Your task to perform on an android device: refresh tabs in the chrome app Image 0: 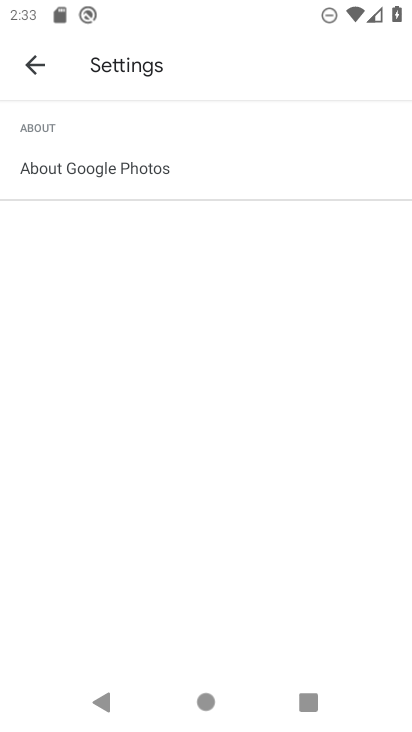
Step 0: click (39, 61)
Your task to perform on an android device: refresh tabs in the chrome app Image 1: 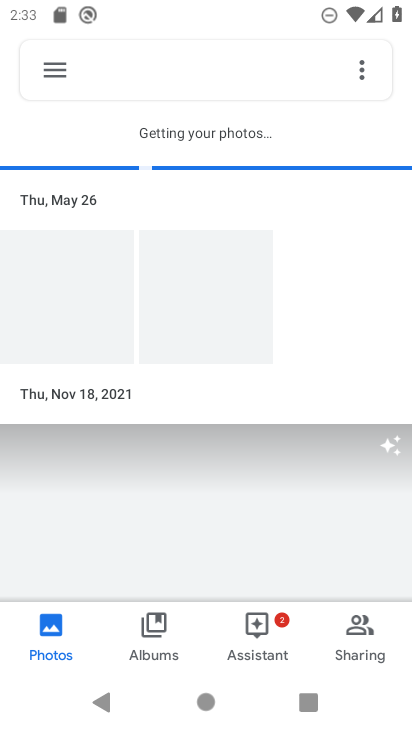
Step 1: click (28, 61)
Your task to perform on an android device: refresh tabs in the chrome app Image 2: 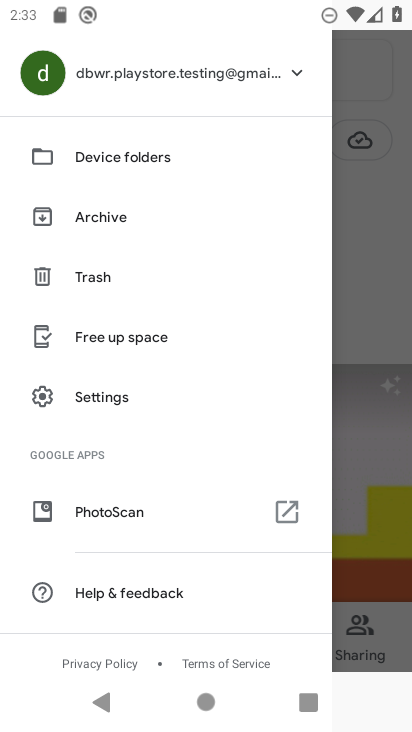
Step 2: press back button
Your task to perform on an android device: refresh tabs in the chrome app Image 3: 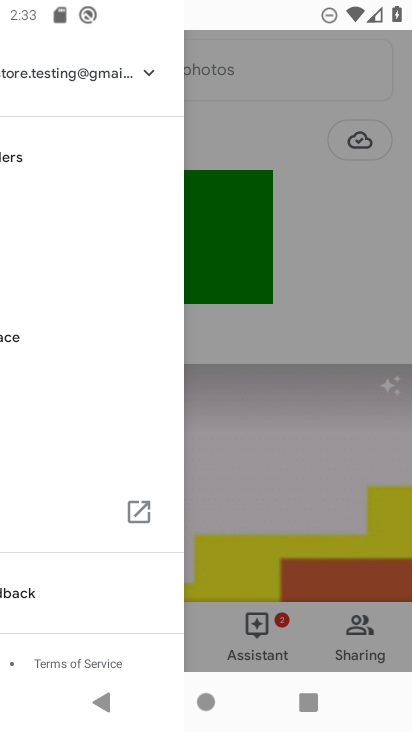
Step 3: press back button
Your task to perform on an android device: refresh tabs in the chrome app Image 4: 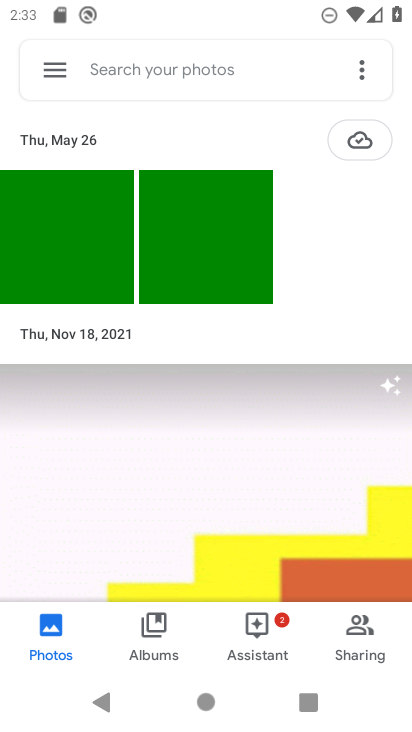
Step 4: press back button
Your task to perform on an android device: refresh tabs in the chrome app Image 5: 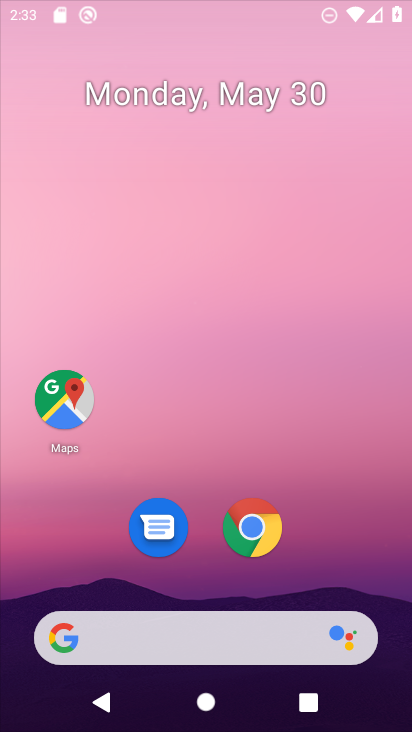
Step 5: press home button
Your task to perform on an android device: refresh tabs in the chrome app Image 6: 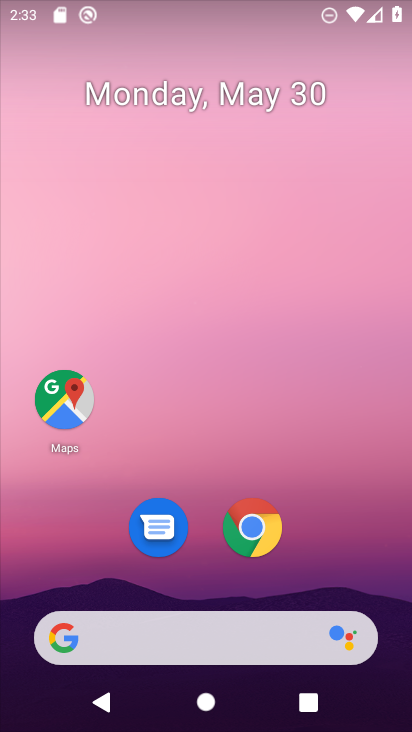
Step 6: press home button
Your task to perform on an android device: refresh tabs in the chrome app Image 7: 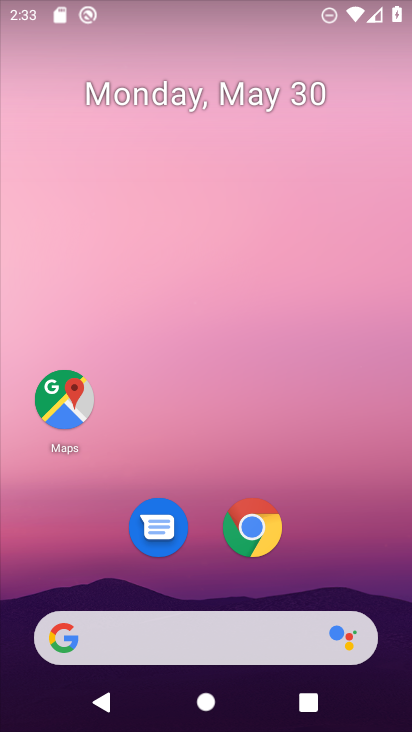
Step 7: drag from (264, 415) to (98, 2)
Your task to perform on an android device: refresh tabs in the chrome app Image 8: 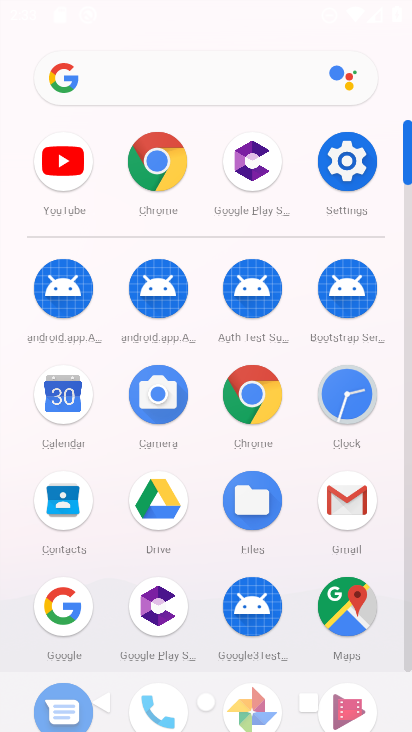
Step 8: click (165, 160)
Your task to perform on an android device: refresh tabs in the chrome app Image 9: 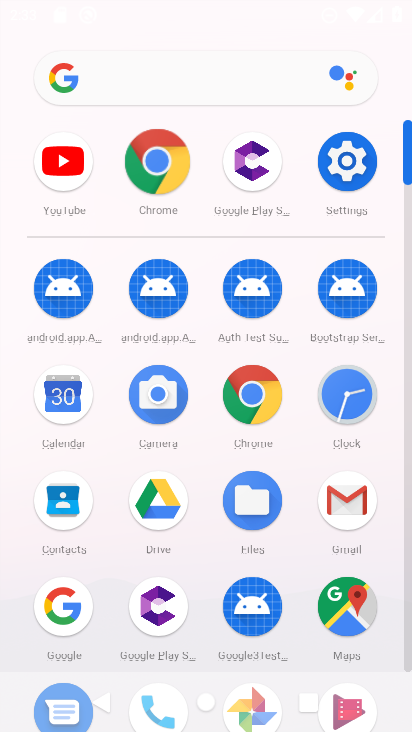
Step 9: click (166, 160)
Your task to perform on an android device: refresh tabs in the chrome app Image 10: 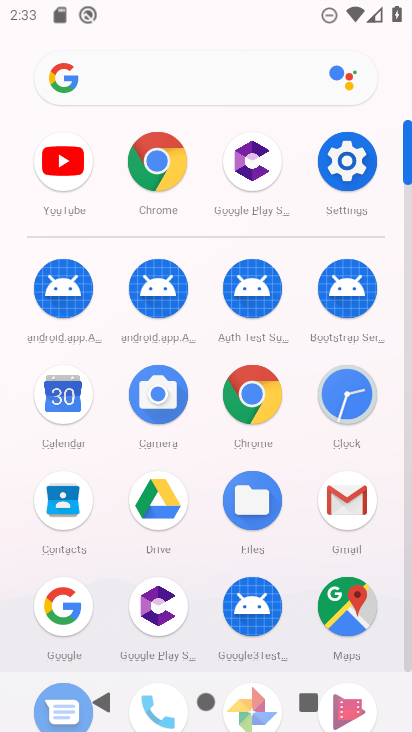
Step 10: click (167, 160)
Your task to perform on an android device: refresh tabs in the chrome app Image 11: 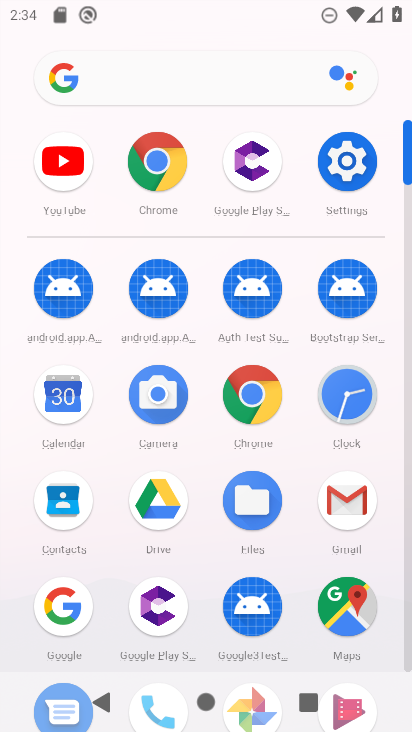
Step 11: click (167, 160)
Your task to perform on an android device: refresh tabs in the chrome app Image 12: 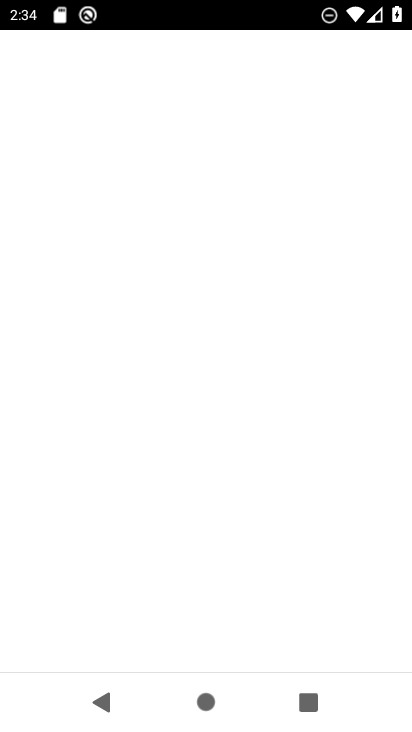
Step 12: click (167, 160)
Your task to perform on an android device: refresh tabs in the chrome app Image 13: 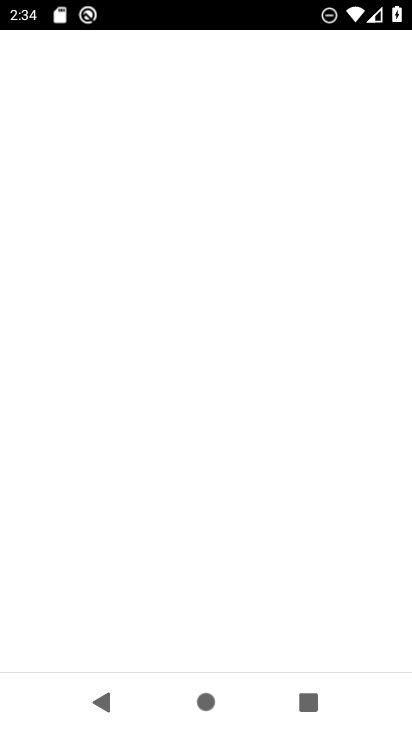
Step 13: click (167, 160)
Your task to perform on an android device: refresh tabs in the chrome app Image 14: 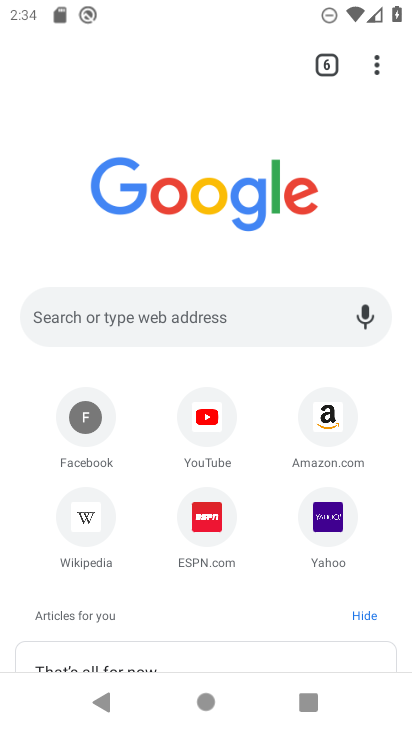
Step 14: click (388, 60)
Your task to perform on an android device: refresh tabs in the chrome app Image 15: 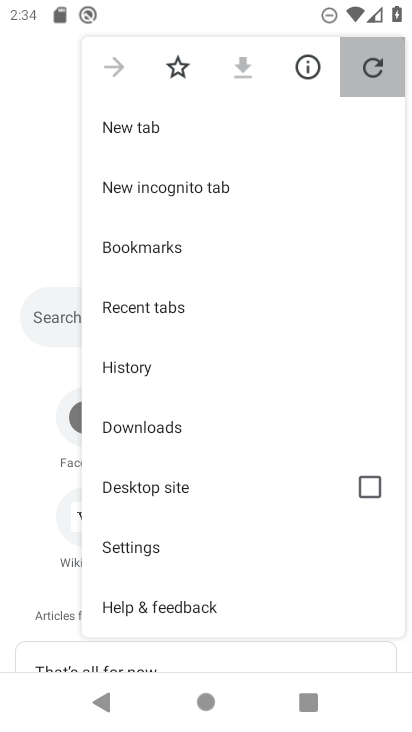
Step 15: click (370, 67)
Your task to perform on an android device: refresh tabs in the chrome app Image 16: 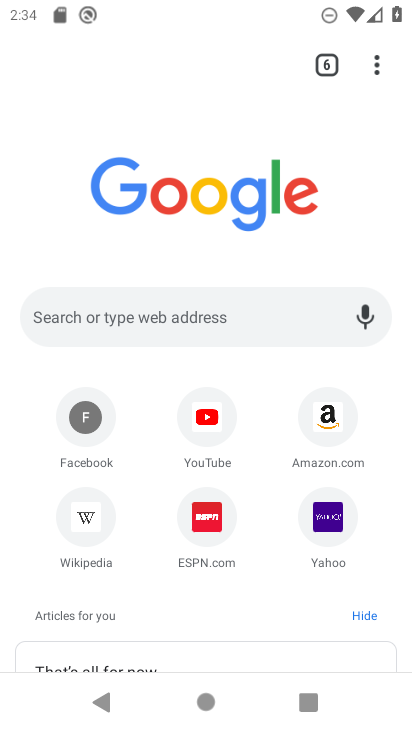
Step 16: click (364, 68)
Your task to perform on an android device: refresh tabs in the chrome app Image 17: 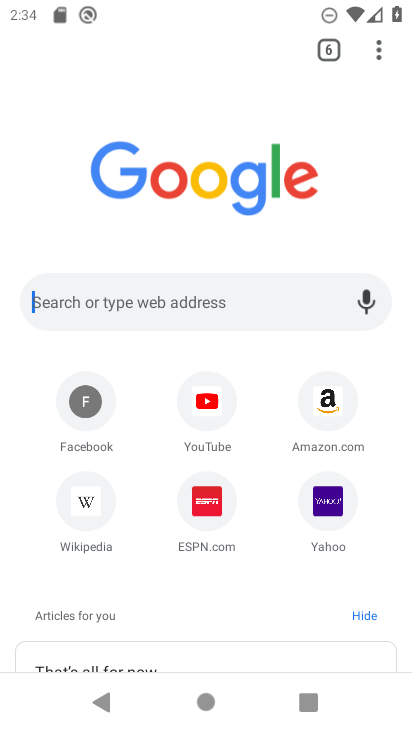
Step 17: click (364, 68)
Your task to perform on an android device: refresh tabs in the chrome app Image 18: 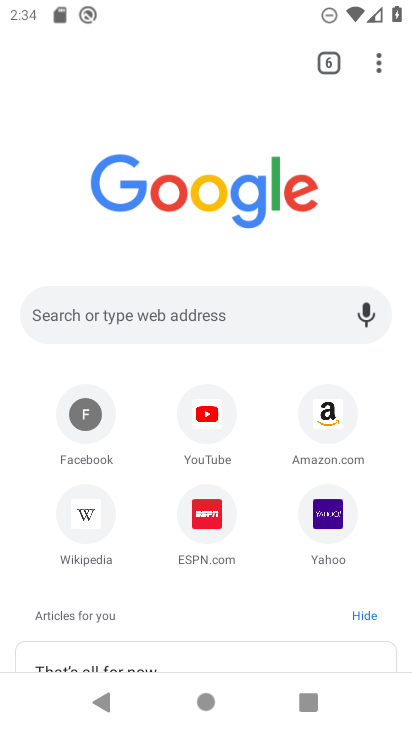
Step 18: click (364, 68)
Your task to perform on an android device: refresh tabs in the chrome app Image 19: 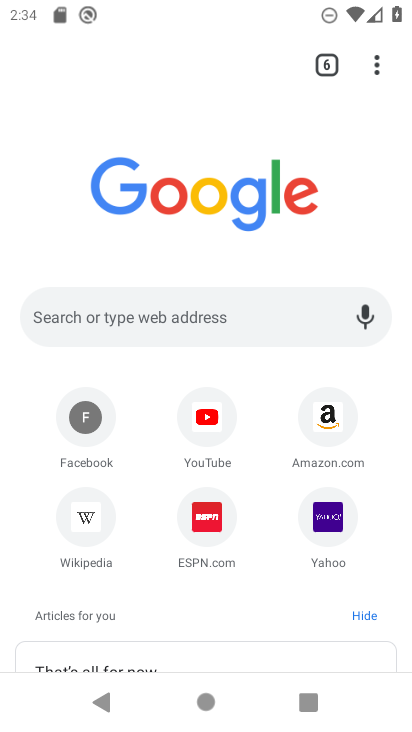
Step 19: task complete